Your task to perform on an android device: toggle airplane mode Image 0: 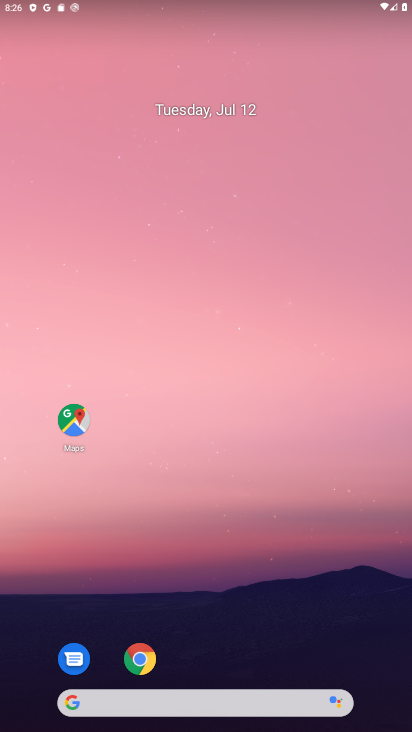
Step 0: drag from (287, 699) to (325, 199)
Your task to perform on an android device: toggle airplane mode Image 1: 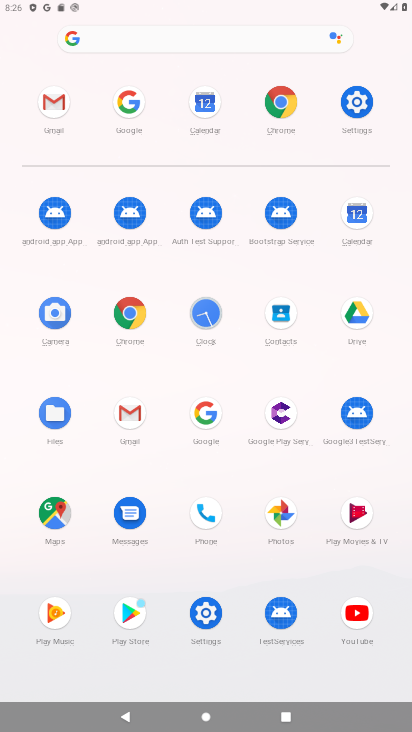
Step 1: click (354, 99)
Your task to perform on an android device: toggle airplane mode Image 2: 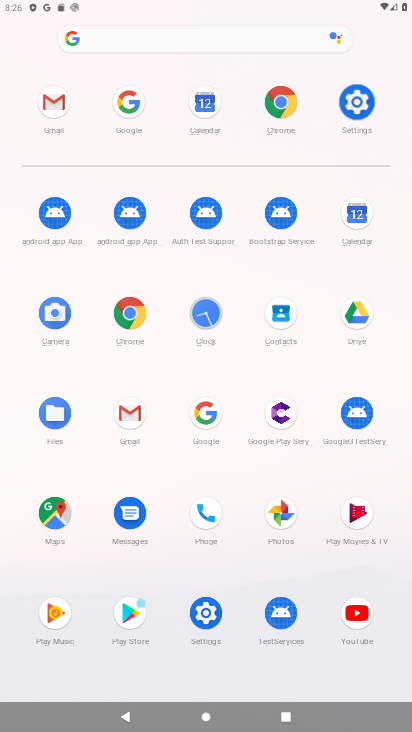
Step 2: click (357, 100)
Your task to perform on an android device: toggle airplane mode Image 3: 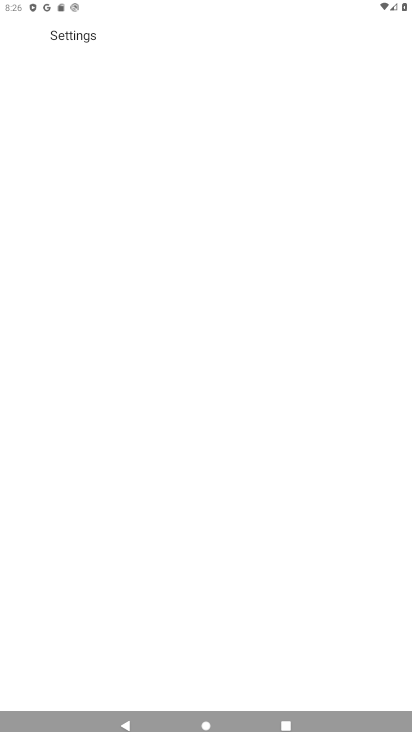
Step 3: click (359, 101)
Your task to perform on an android device: toggle airplane mode Image 4: 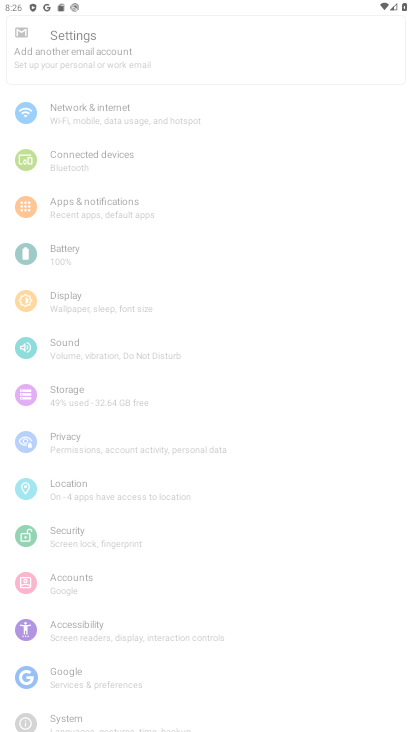
Step 4: click (361, 101)
Your task to perform on an android device: toggle airplane mode Image 5: 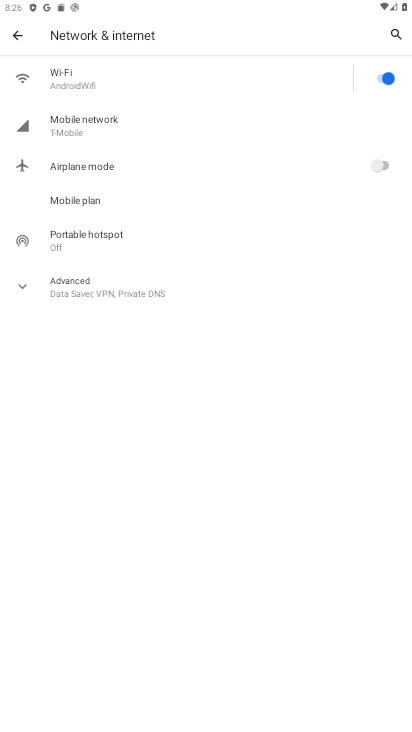
Step 5: click (378, 161)
Your task to perform on an android device: toggle airplane mode Image 6: 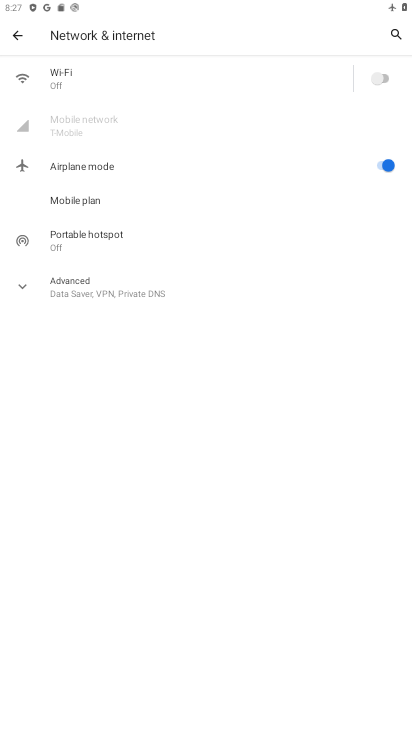
Step 6: task complete